Your task to perform on an android device: toggle airplane mode Image 0: 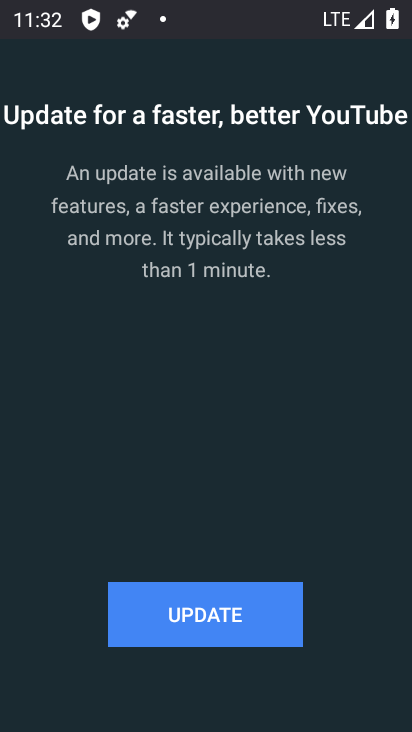
Step 0: press home button
Your task to perform on an android device: toggle airplane mode Image 1: 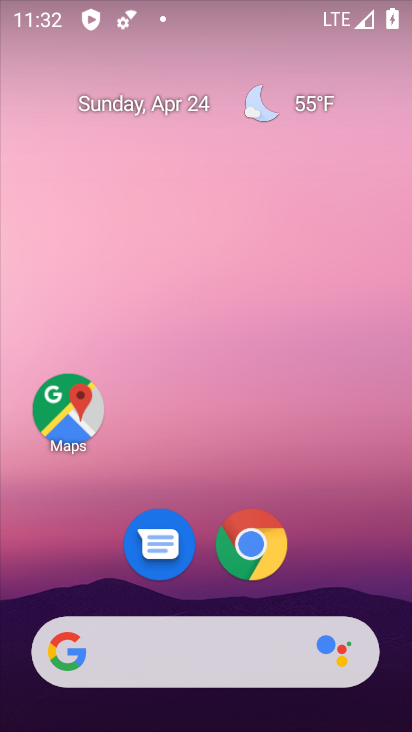
Step 1: drag from (328, 559) to (154, 72)
Your task to perform on an android device: toggle airplane mode Image 2: 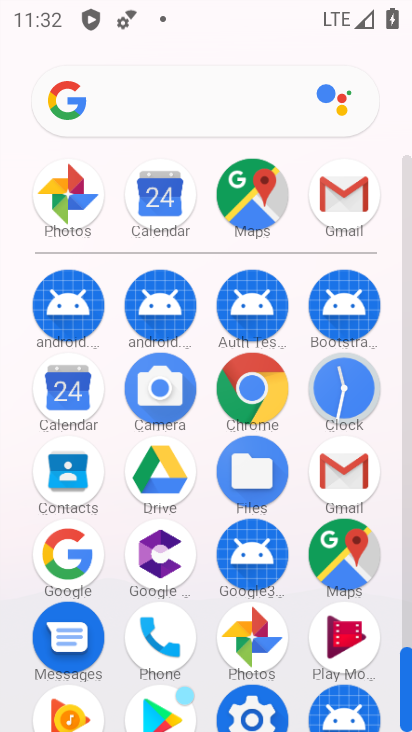
Step 2: click (255, 709)
Your task to perform on an android device: toggle airplane mode Image 3: 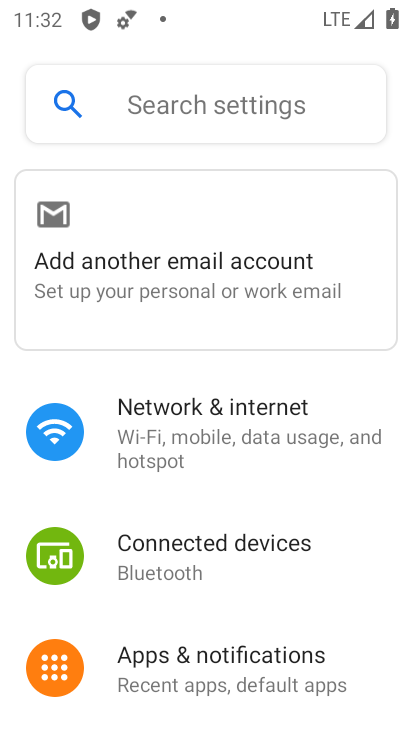
Step 3: drag from (127, 266) to (127, 444)
Your task to perform on an android device: toggle airplane mode Image 4: 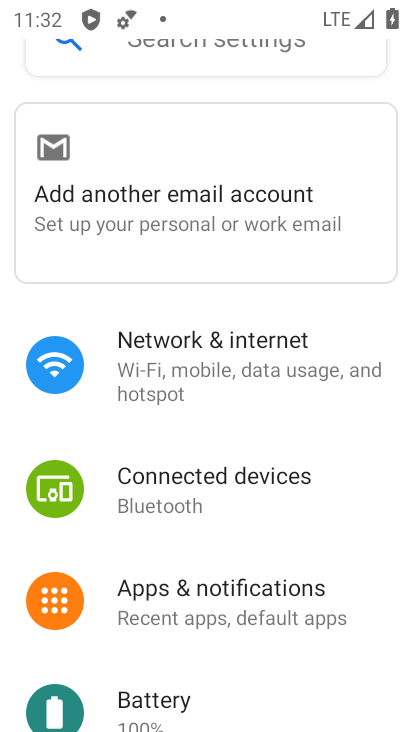
Step 4: click (334, 368)
Your task to perform on an android device: toggle airplane mode Image 5: 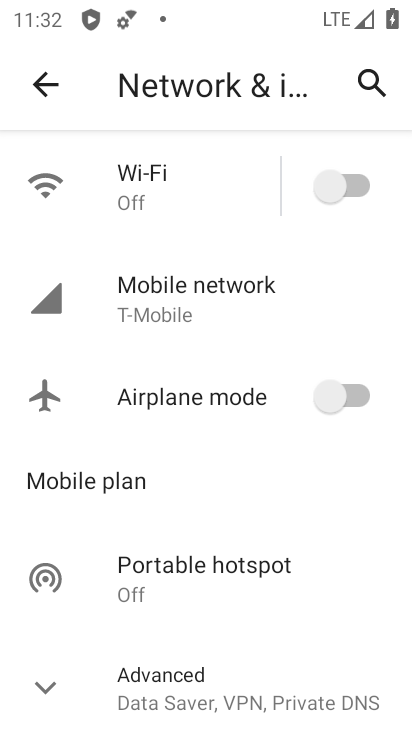
Step 5: click (339, 395)
Your task to perform on an android device: toggle airplane mode Image 6: 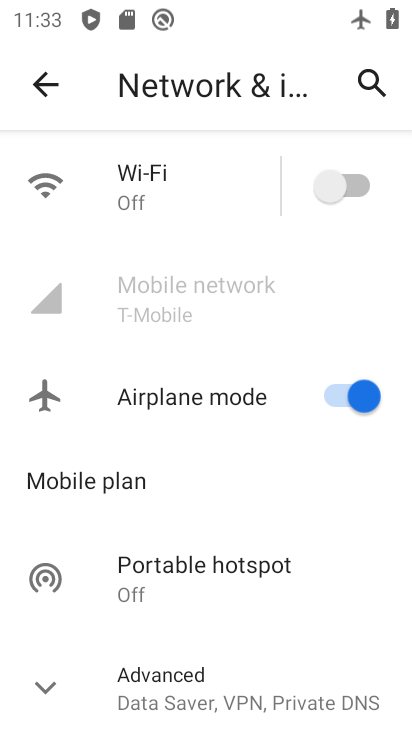
Step 6: task complete